Your task to perform on an android device: see tabs open on other devices in the chrome app Image 0: 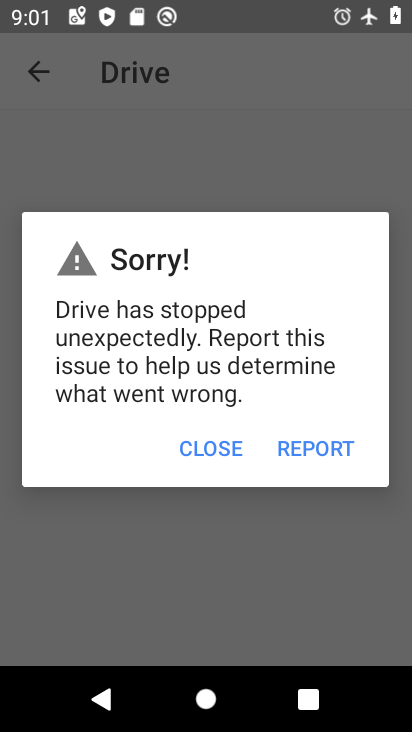
Step 0: press home button
Your task to perform on an android device: see tabs open on other devices in the chrome app Image 1: 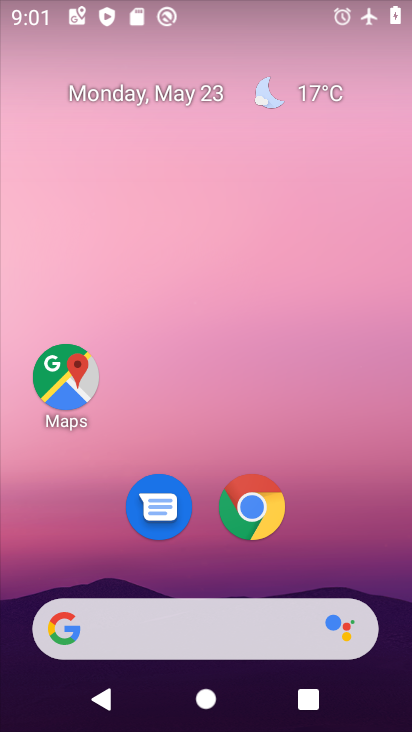
Step 1: click (252, 525)
Your task to perform on an android device: see tabs open on other devices in the chrome app Image 2: 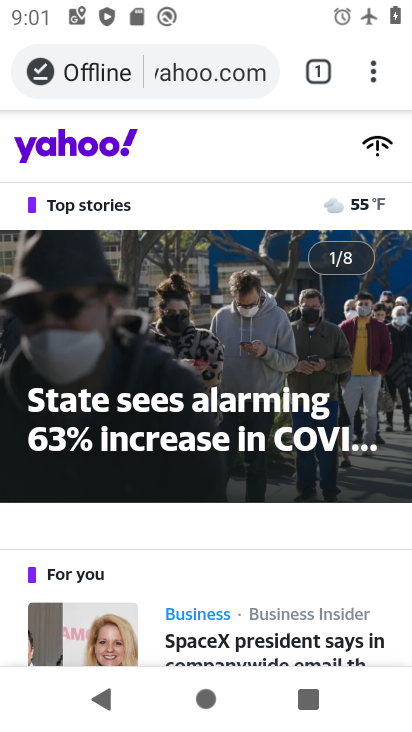
Step 2: click (371, 73)
Your task to perform on an android device: see tabs open on other devices in the chrome app Image 3: 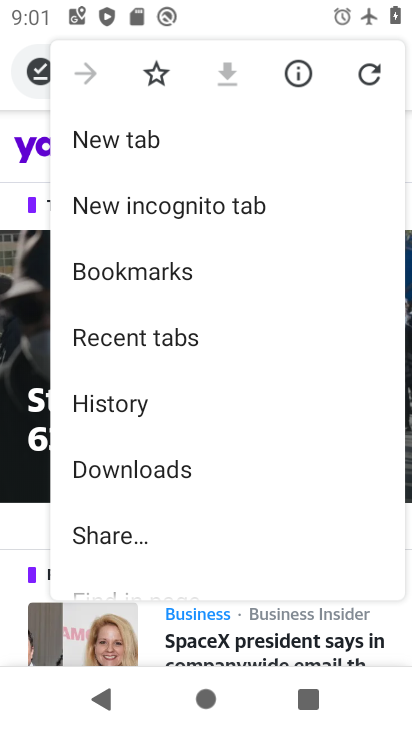
Step 3: click (142, 336)
Your task to perform on an android device: see tabs open on other devices in the chrome app Image 4: 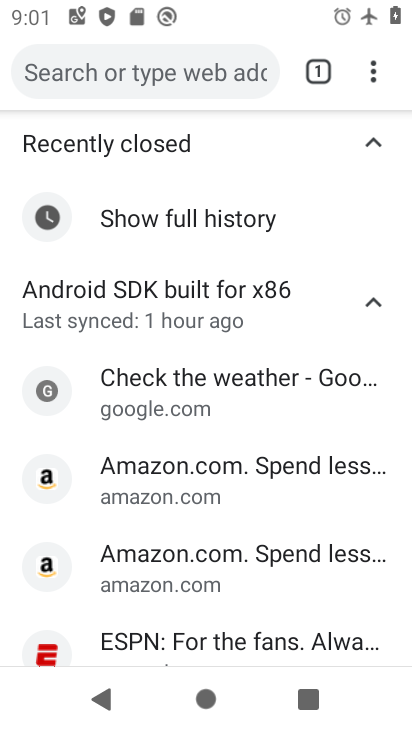
Step 4: task complete